Your task to perform on an android device: turn off location history Image 0: 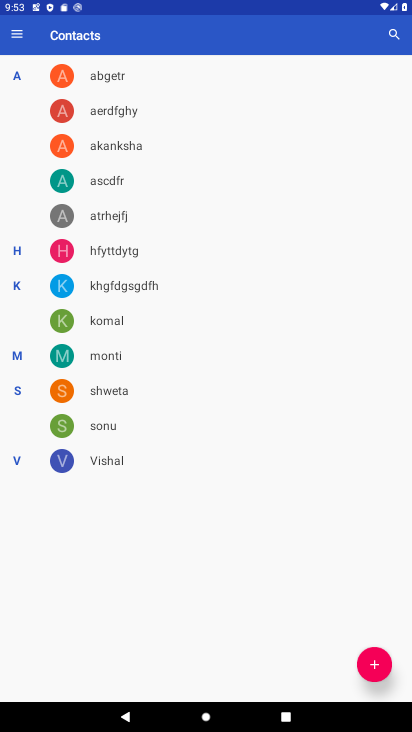
Step 0: press home button
Your task to perform on an android device: turn off location history Image 1: 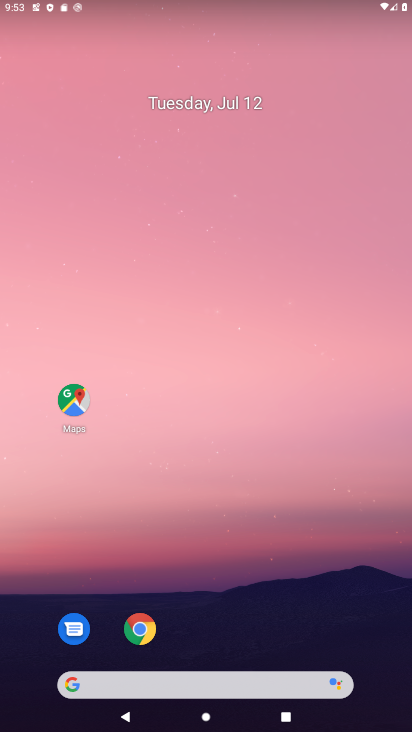
Step 1: drag from (246, 676) to (305, 101)
Your task to perform on an android device: turn off location history Image 2: 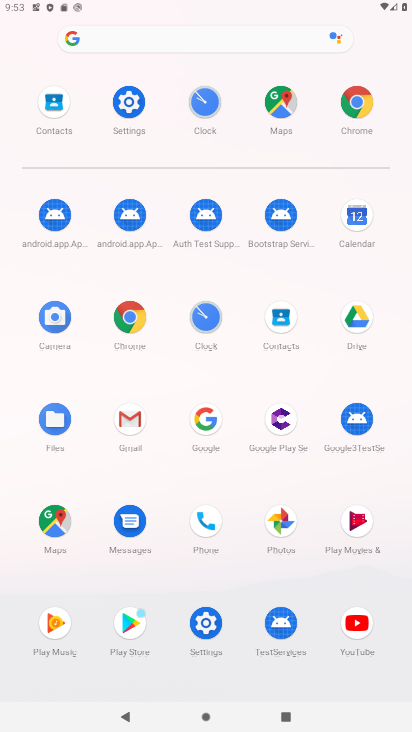
Step 2: click (138, 102)
Your task to perform on an android device: turn off location history Image 3: 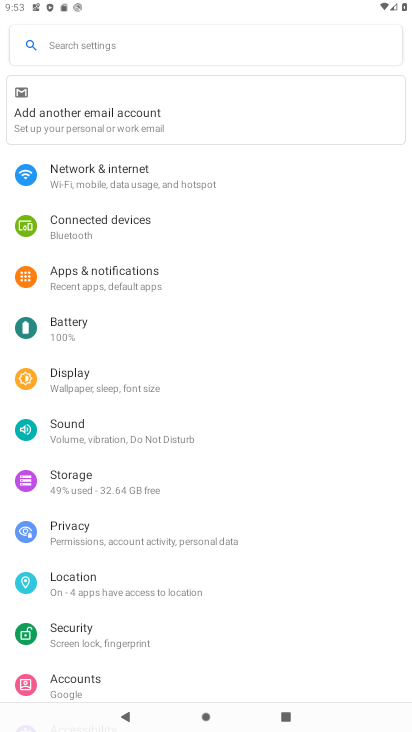
Step 3: click (95, 585)
Your task to perform on an android device: turn off location history Image 4: 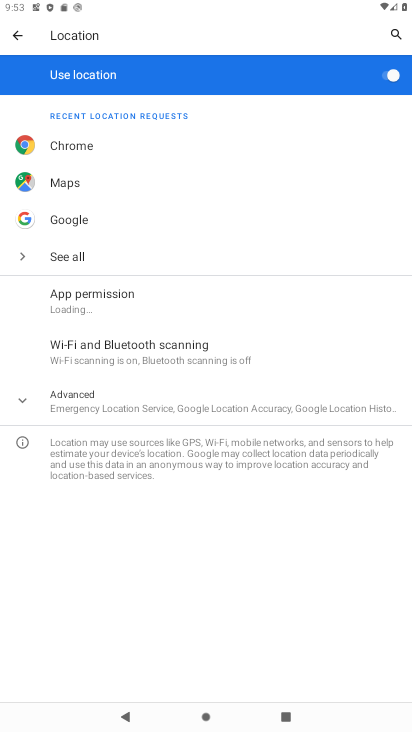
Step 4: click (114, 404)
Your task to perform on an android device: turn off location history Image 5: 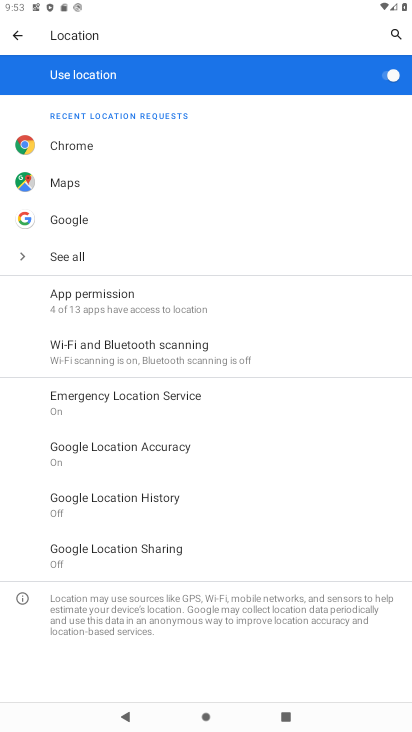
Step 5: click (133, 501)
Your task to perform on an android device: turn off location history Image 6: 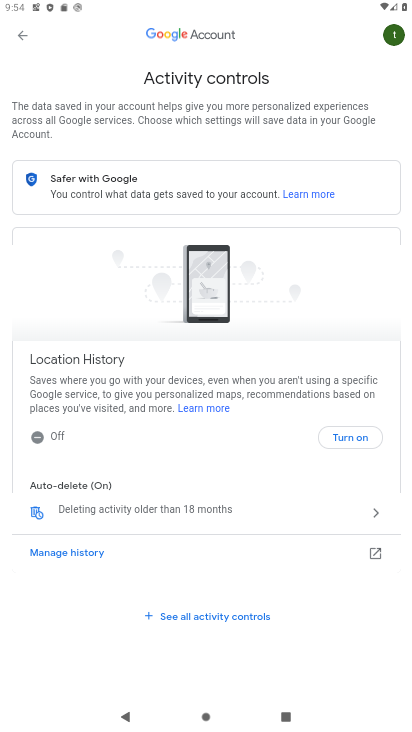
Step 6: task complete